Your task to perform on an android device: refresh tabs in the chrome app Image 0: 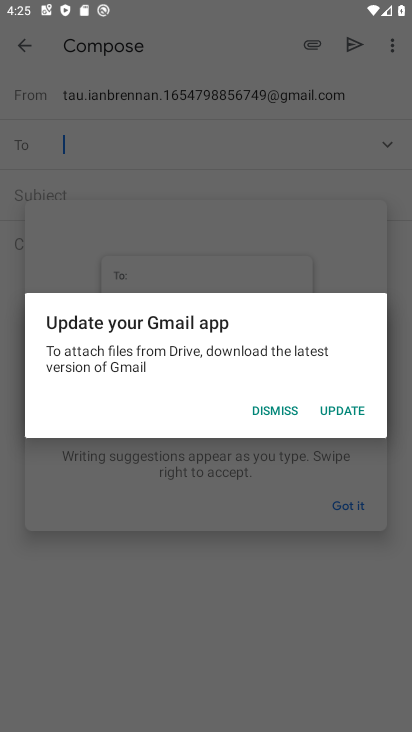
Step 0: press home button
Your task to perform on an android device: refresh tabs in the chrome app Image 1: 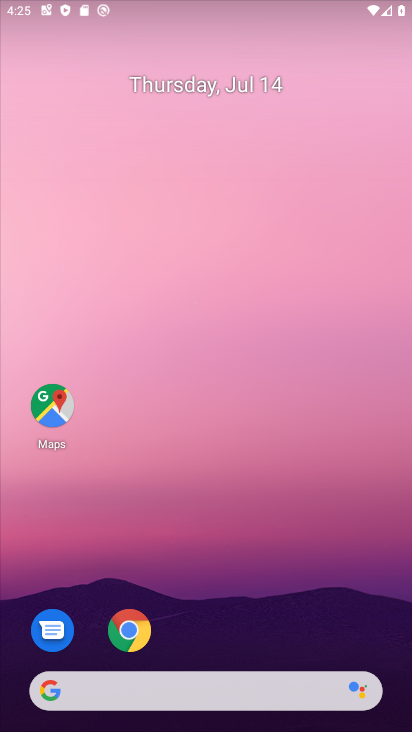
Step 1: drag from (308, 717) to (274, 5)
Your task to perform on an android device: refresh tabs in the chrome app Image 2: 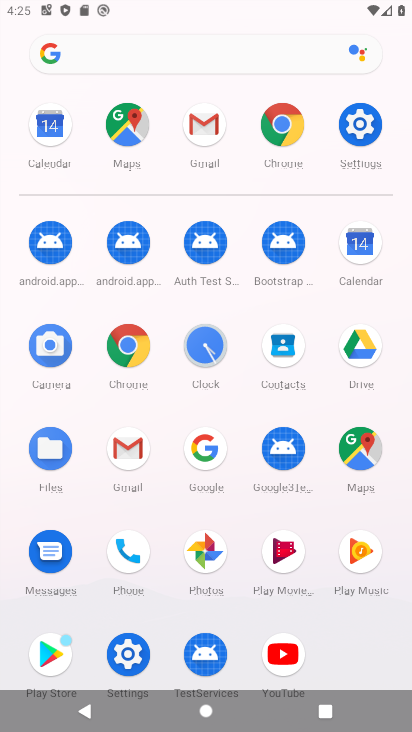
Step 2: click (125, 337)
Your task to perform on an android device: refresh tabs in the chrome app Image 3: 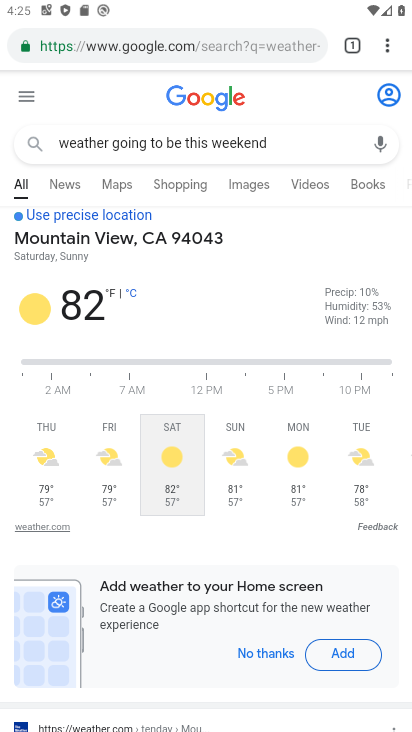
Step 3: click (387, 47)
Your task to perform on an android device: refresh tabs in the chrome app Image 4: 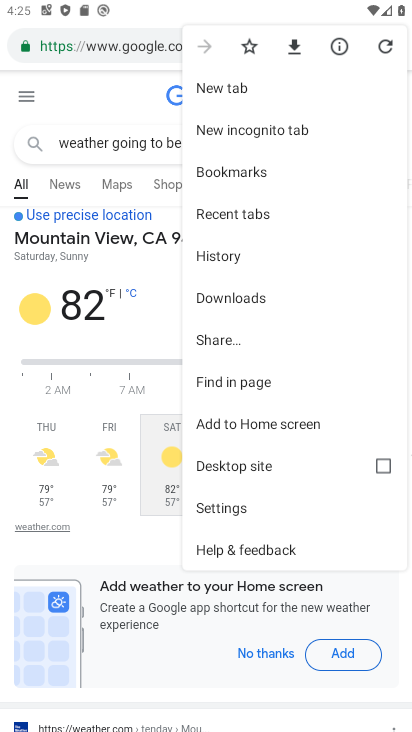
Step 4: click (294, 84)
Your task to perform on an android device: refresh tabs in the chrome app Image 5: 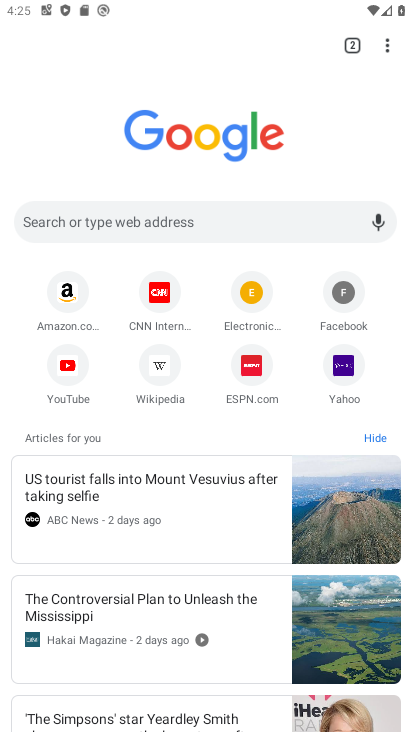
Step 5: task complete